Your task to perform on an android device: Open settings Image 0: 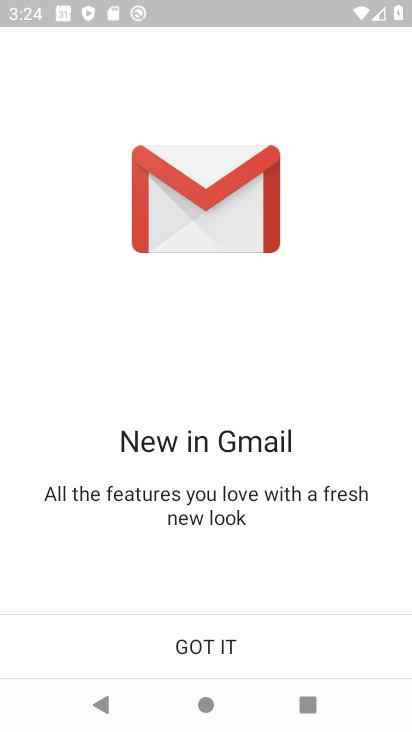
Step 0: press home button
Your task to perform on an android device: Open settings Image 1: 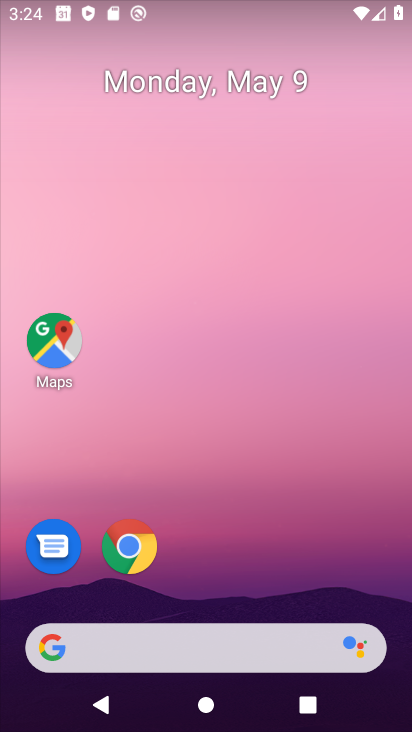
Step 1: drag from (336, 557) to (279, 107)
Your task to perform on an android device: Open settings Image 2: 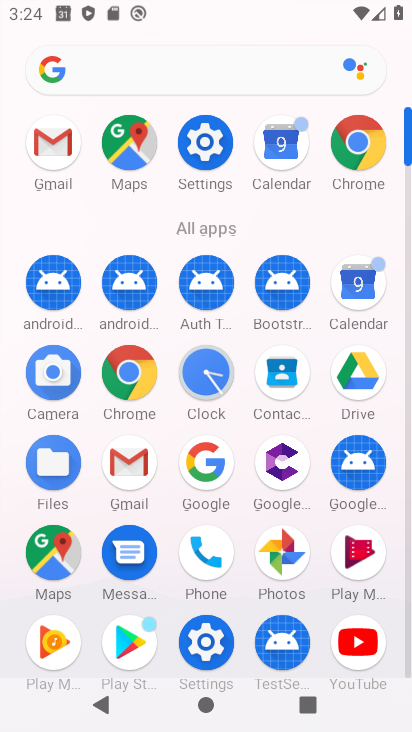
Step 2: click (238, 142)
Your task to perform on an android device: Open settings Image 3: 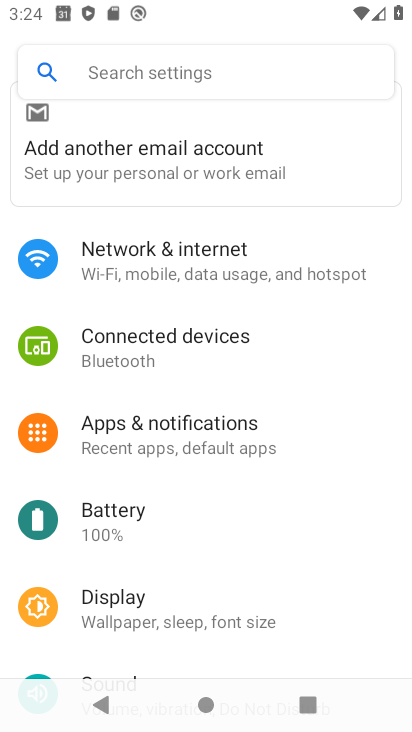
Step 3: task complete